Your task to perform on an android device: Go to battery settings Image 0: 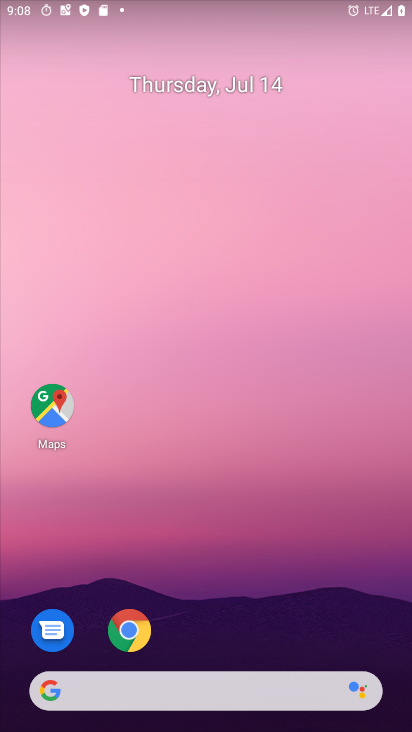
Step 0: drag from (211, 719) to (199, 62)
Your task to perform on an android device: Go to battery settings Image 1: 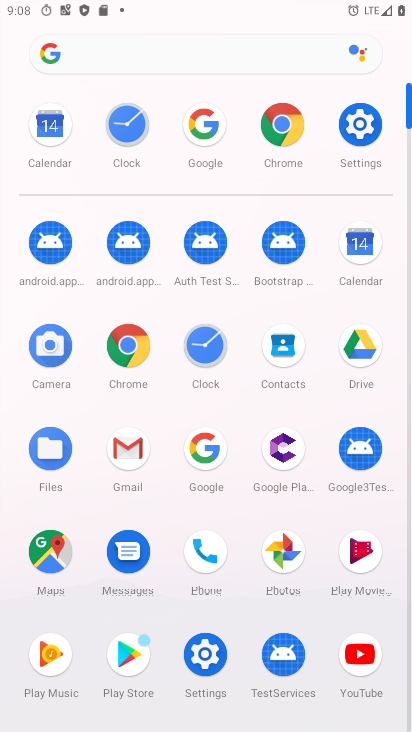
Step 1: click (361, 127)
Your task to perform on an android device: Go to battery settings Image 2: 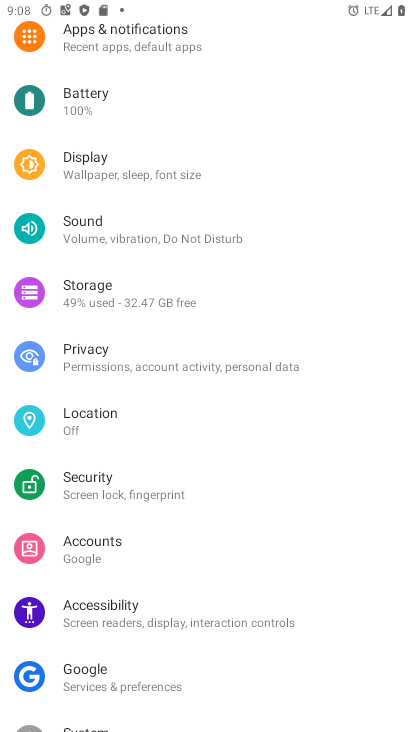
Step 2: click (76, 113)
Your task to perform on an android device: Go to battery settings Image 3: 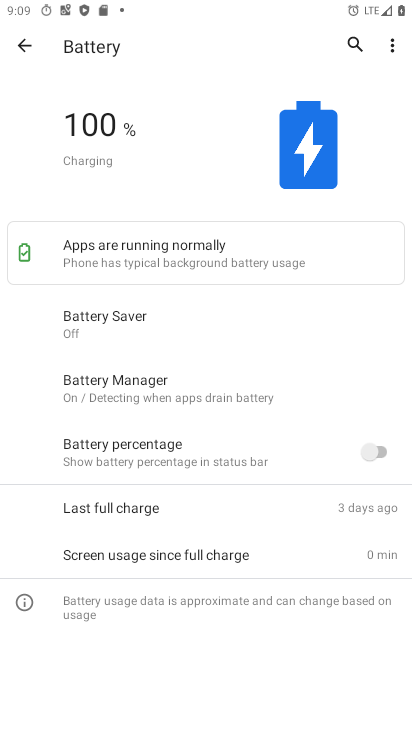
Step 3: task complete